Your task to perform on an android device: set an alarm Image 0: 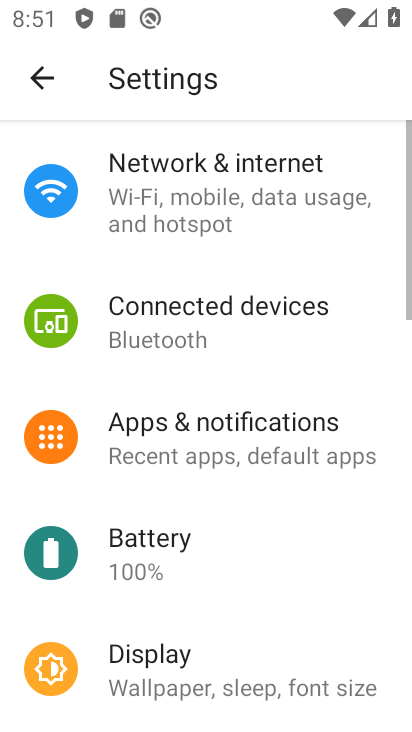
Step 0: press home button
Your task to perform on an android device: set an alarm Image 1: 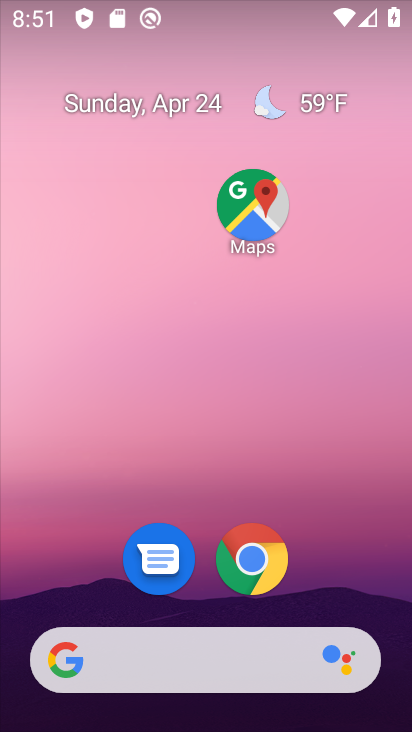
Step 1: drag from (74, 652) to (150, 144)
Your task to perform on an android device: set an alarm Image 2: 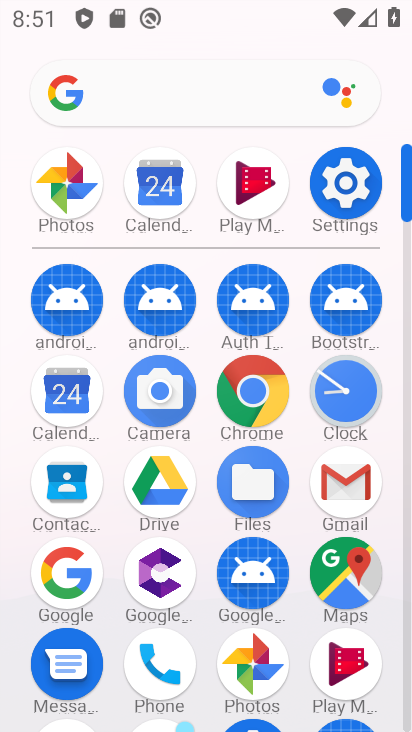
Step 2: click (332, 380)
Your task to perform on an android device: set an alarm Image 3: 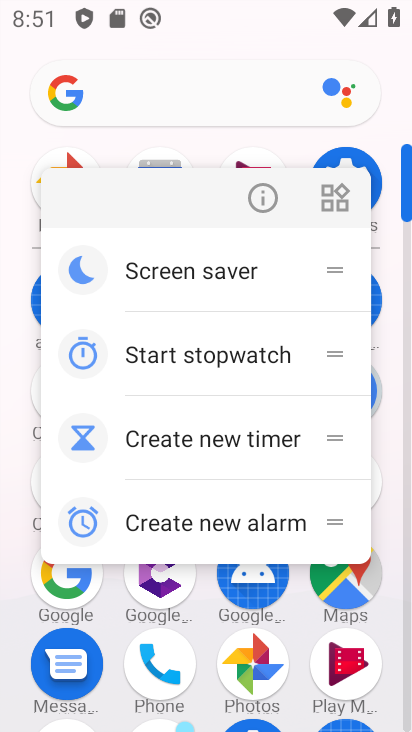
Step 3: click (265, 196)
Your task to perform on an android device: set an alarm Image 4: 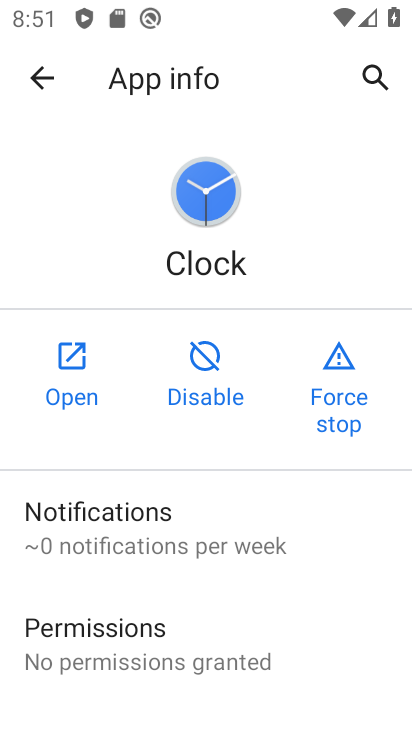
Step 4: click (65, 375)
Your task to perform on an android device: set an alarm Image 5: 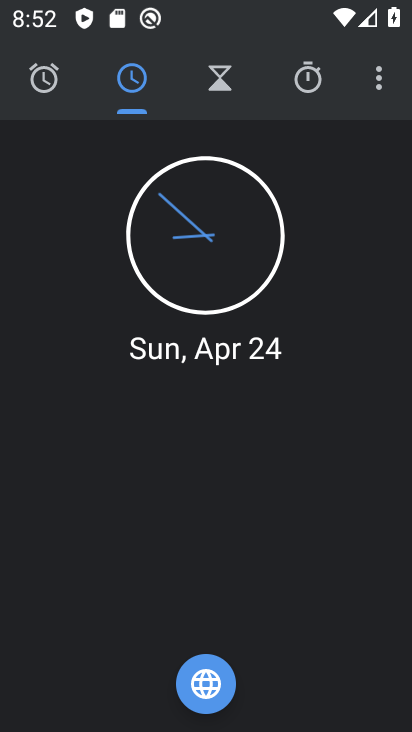
Step 5: click (43, 85)
Your task to perform on an android device: set an alarm Image 6: 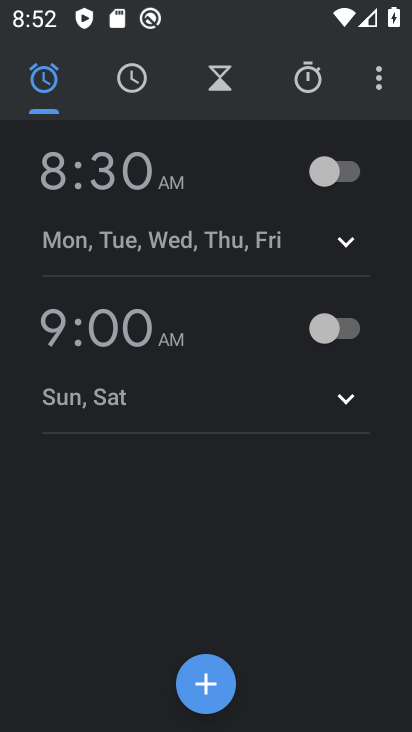
Step 6: click (323, 182)
Your task to perform on an android device: set an alarm Image 7: 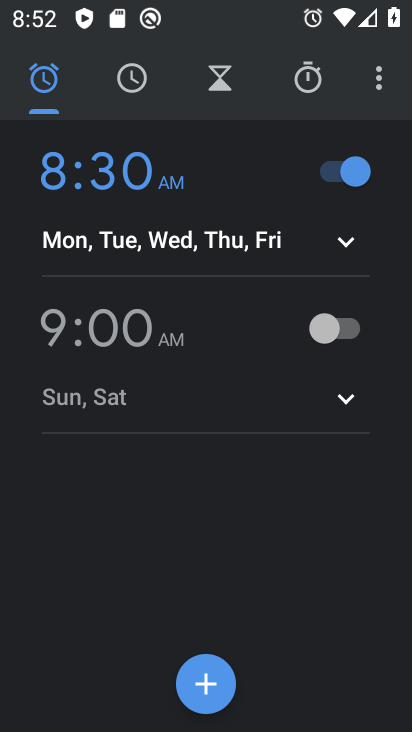
Step 7: task complete